Your task to perform on an android device: toggle wifi Image 0: 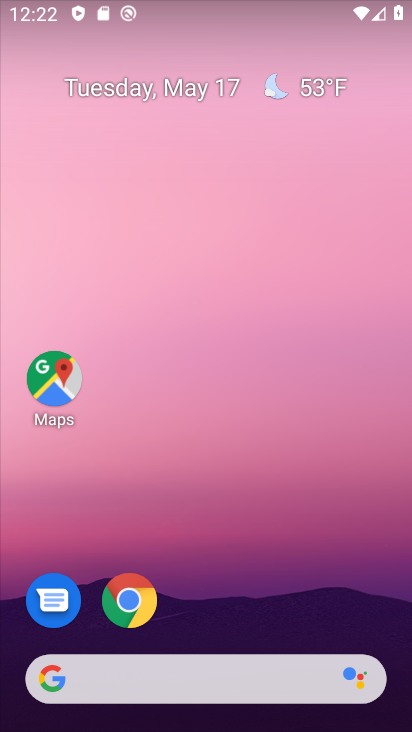
Step 0: drag from (219, 608) to (143, 159)
Your task to perform on an android device: toggle wifi Image 1: 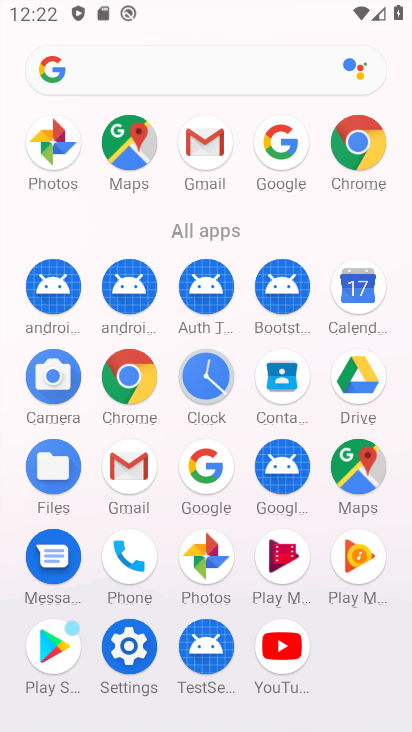
Step 1: click (131, 628)
Your task to perform on an android device: toggle wifi Image 2: 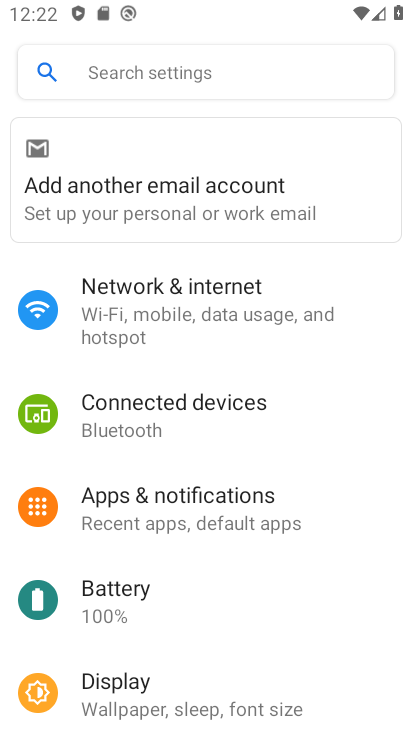
Step 2: click (115, 335)
Your task to perform on an android device: toggle wifi Image 3: 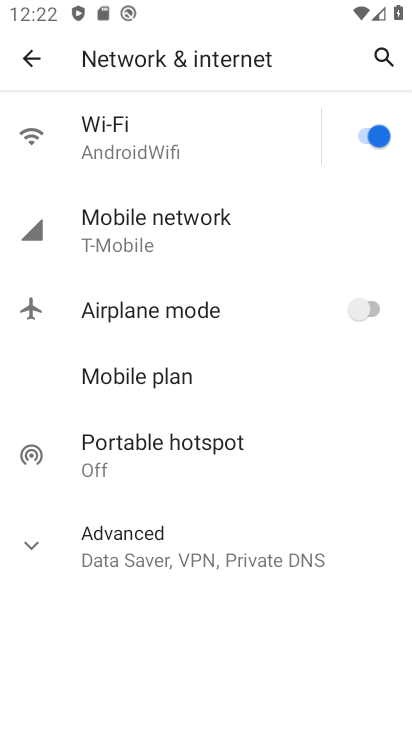
Step 3: click (361, 137)
Your task to perform on an android device: toggle wifi Image 4: 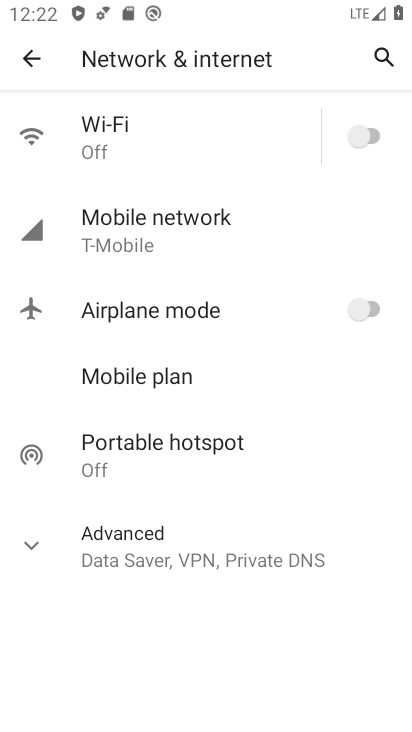
Step 4: click (366, 136)
Your task to perform on an android device: toggle wifi Image 5: 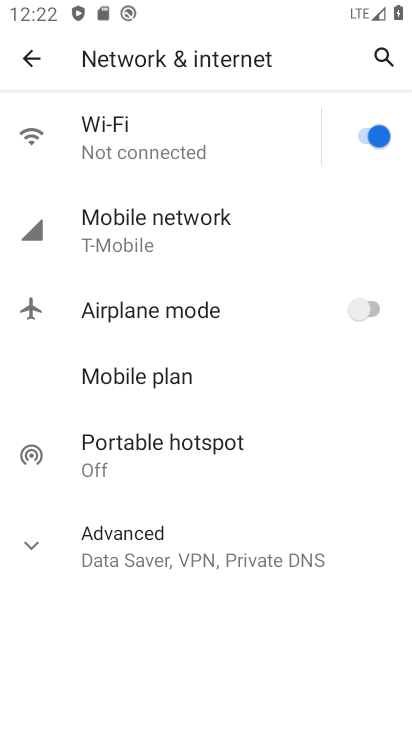
Step 5: click (365, 140)
Your task to perform on an android device: toggle wifi Image 6: 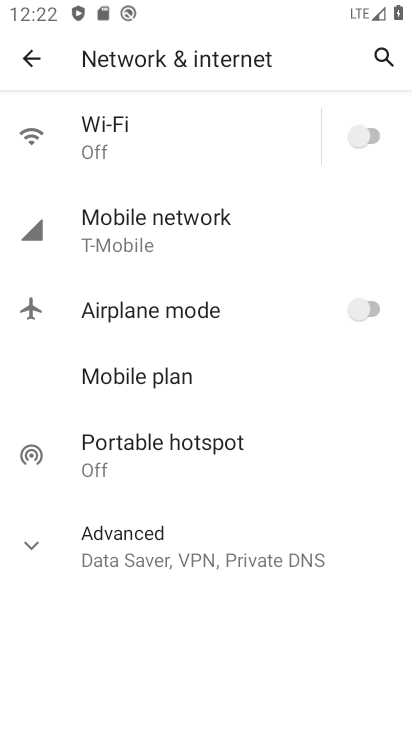
Step 6: task complete